Your task to perform on an android device: toggle data saver in the chrome app Image 0: 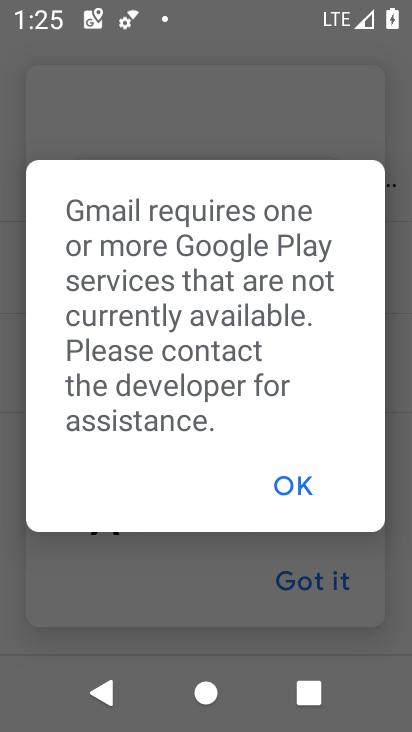
Step 0: press home button
Your task to perform on an android device: toggle data saver in the chrome app Image 1: 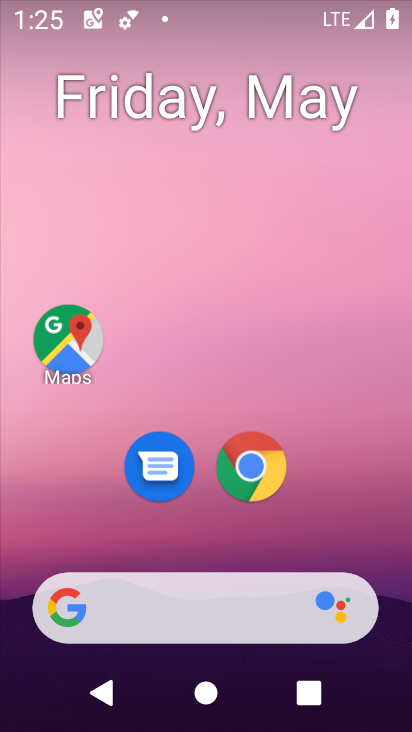
Step 1: drag from (335, 477) to (376, 15)
Your task to perform on an android device: toggle data saver in the chrome app Image 2: 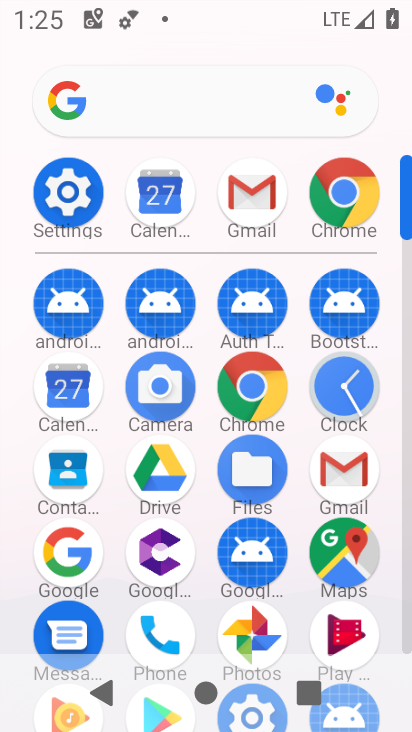
Step 2: click (340, 203)
Your task to perform on an android device: toggle data saver in the chrome app Image 3: 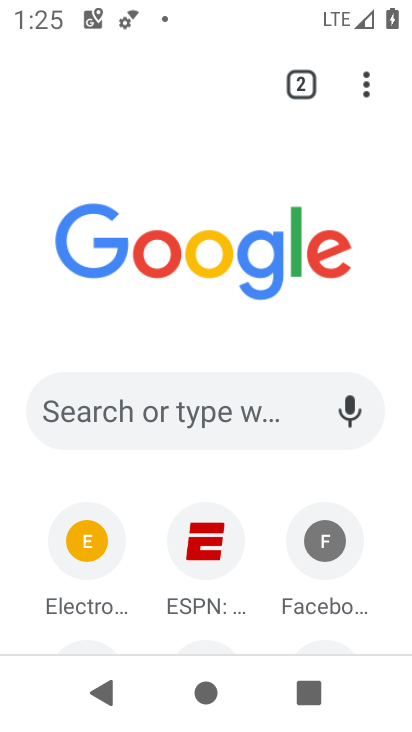
Step 3: drag from (373, 86) to (148, 526)
Your task to perform on an android device: toggle data saver in the chrome app Image 4: 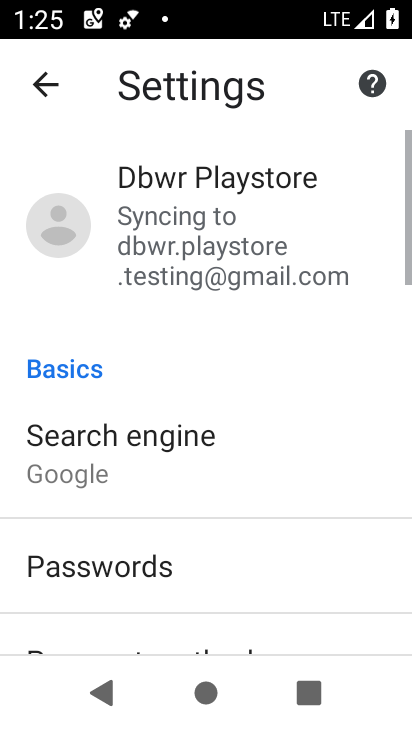
Step 4: drag from (140, 562) to (202, 129)
Your task to perform on an android device: toggle data saver in the chrome app Image 5: 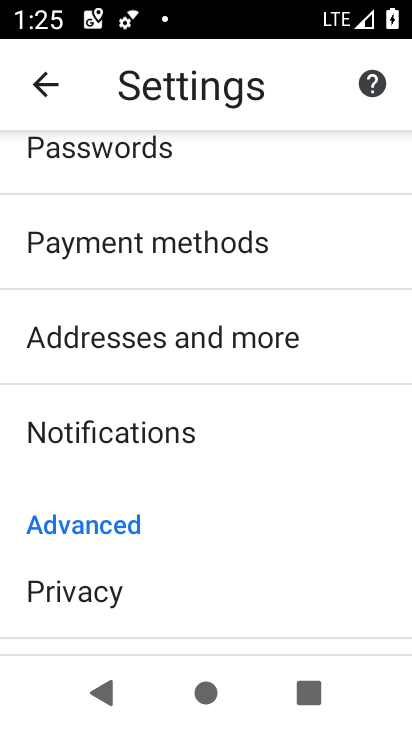
Step 5: drag from (171, 519) to (224, 166)
Your task to perform on an android device: toggle data saver in the chrome app Image 6: 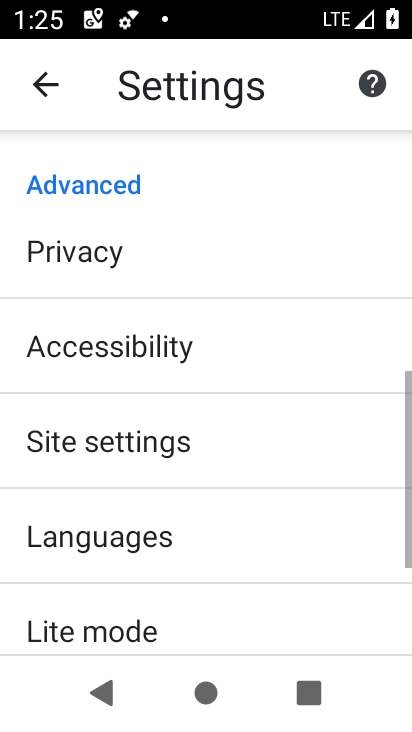
Step 6: drag from (211, 544) to (264, 207)
Your task to perform on an android device: toggle data saver in the chrome app Image 7: 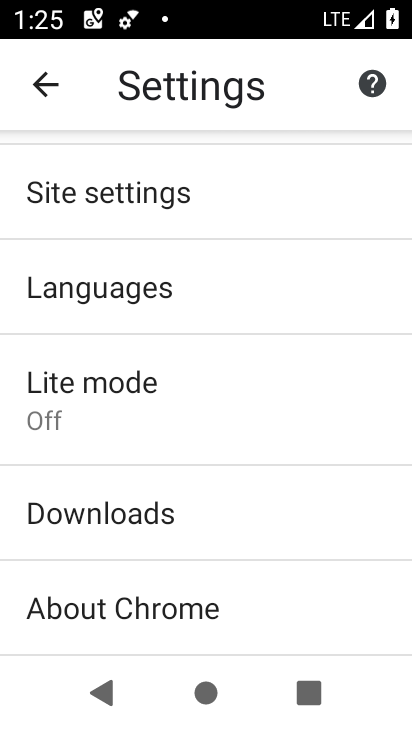
Step 7: click (160, 396)
Your task to perform on an android device: toggle data saver in the chrome app Image 8: 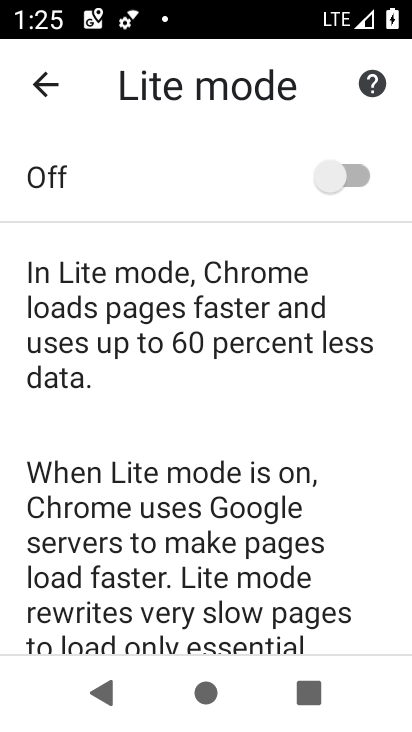
Step 8: click (328, 185)
Your task to perform on an android device: toggle data saver in the chrome app Image 9: 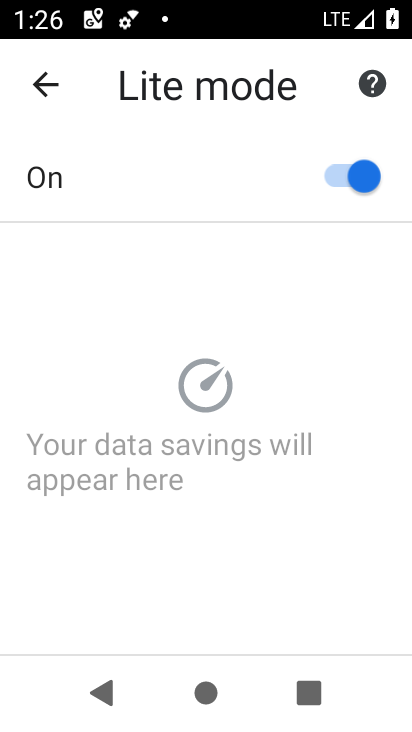
Step 9: task complete